Your task to perform on an android device: What's the weather? Image 0: 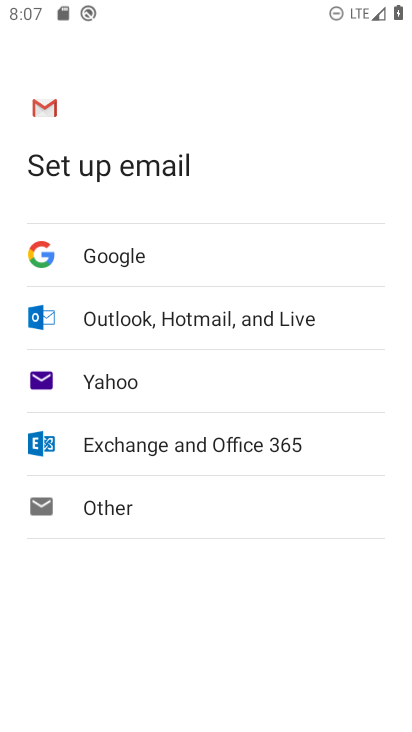
Step 0: press home button
Your task to perform on an android device: What's the weather? Image 1: 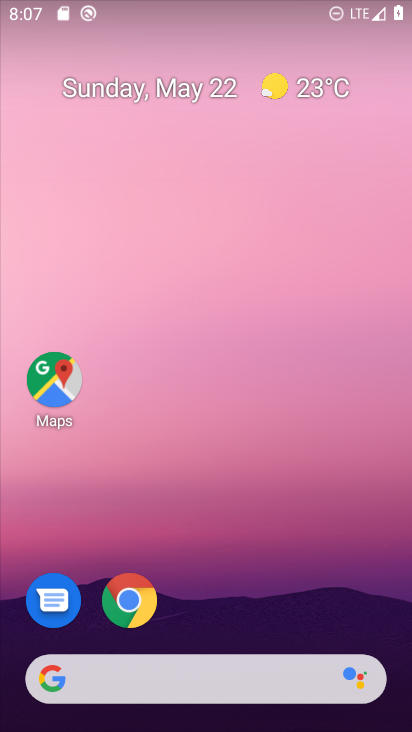
Step 1: drag from (350, 490) to (333, 25)
Your task to perform on an android device: What's the weather? Image 2: 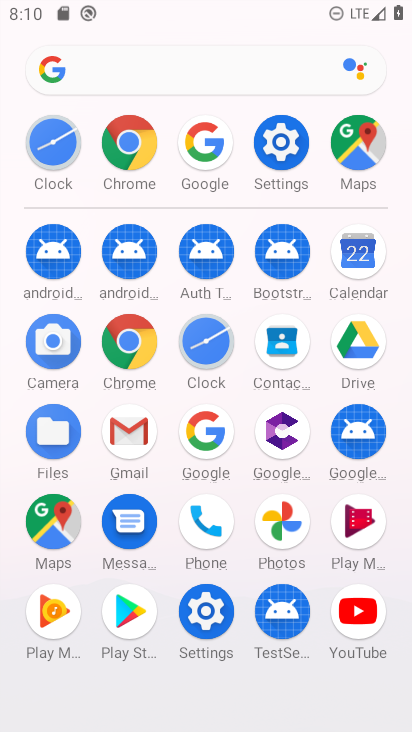
Step 2: click (195, 430)
Your task to perform on an android device: What's the weather? Image 3: 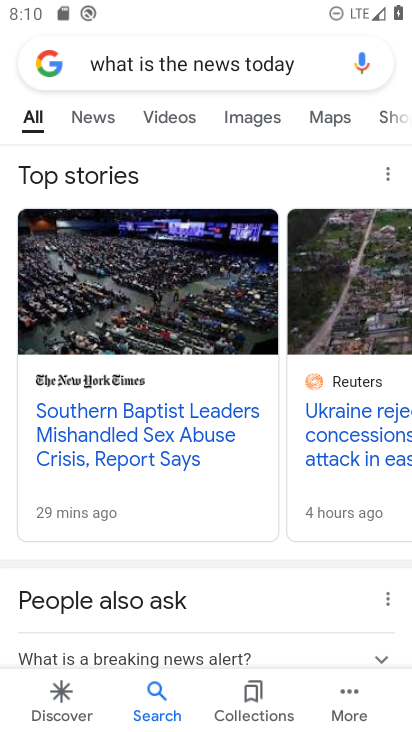
Step 3: press back button
Your task to perform on an android device: What's the weather? Image 4: 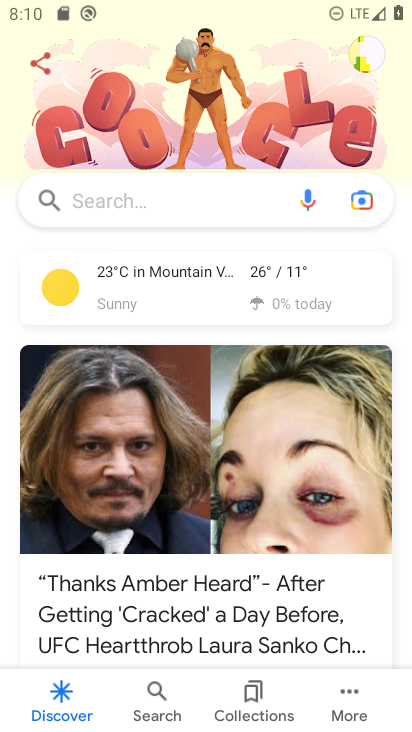
Step 4: click (168, 190)
Your task to perform on an android device: What's the weather? Image 5: 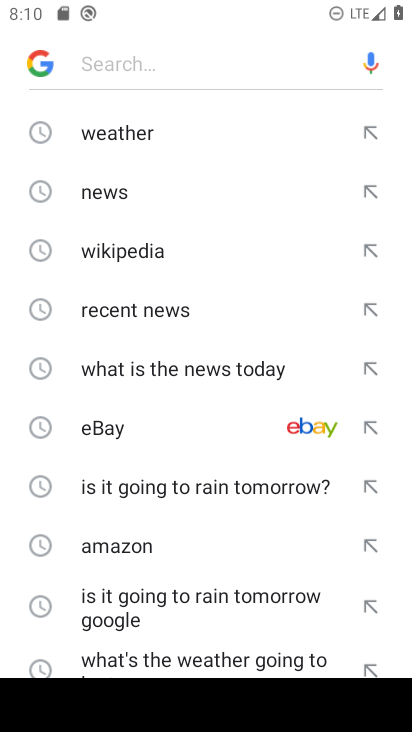
Step 5: click (112, 120)
Your task to perform on an android device: What's the weather? Image 6: 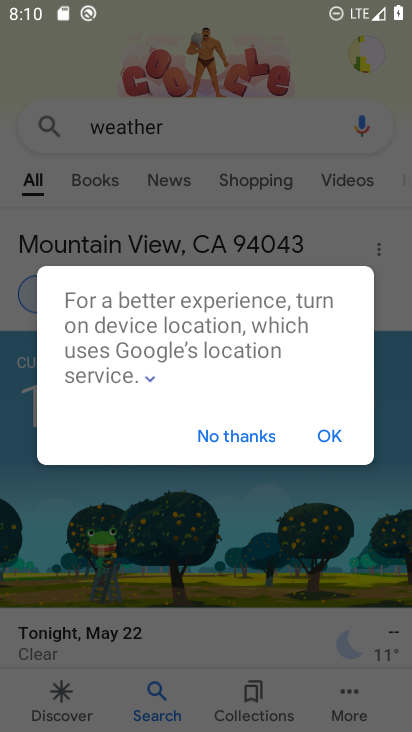
Step 6: click (224, 432)
Your task to perform on an android device: What's the weather? Image 7: 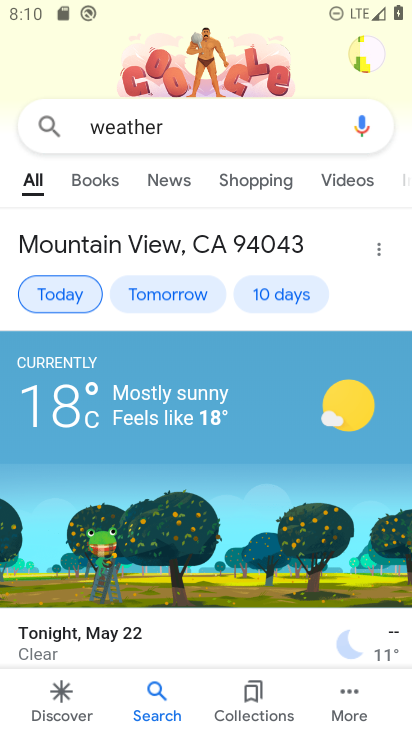
Step 7: task complete